Your task to perform on an android device: Open Amazon Image 0: 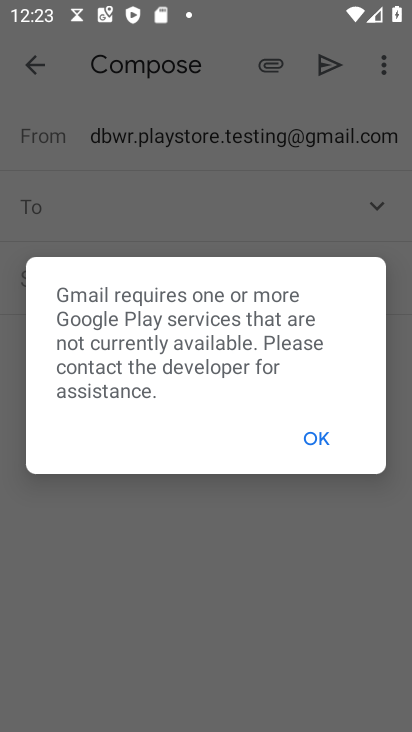
Step 0: press home button
Your task to perform on an android device: Open Amazon Image 1: 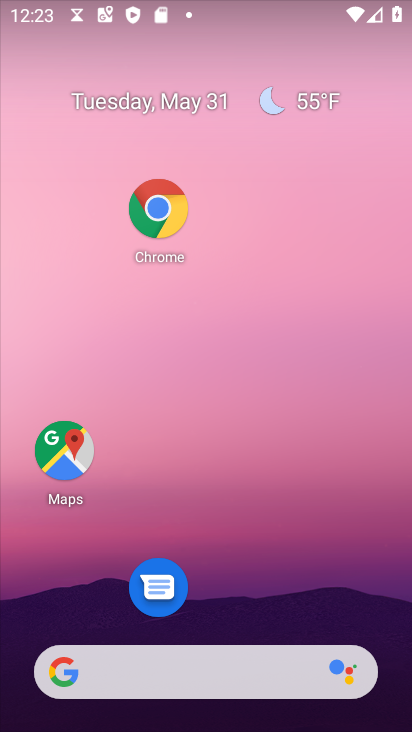
Step 1: click (170, 202)
Your task to perform on an android device: Open Amazon Image 2: 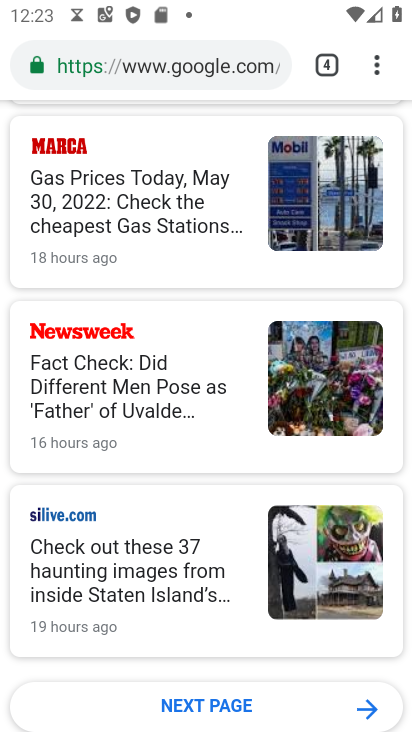
Step 2: click (331, 70)
Your task to perform on an android device: Open Amazon Image 3: 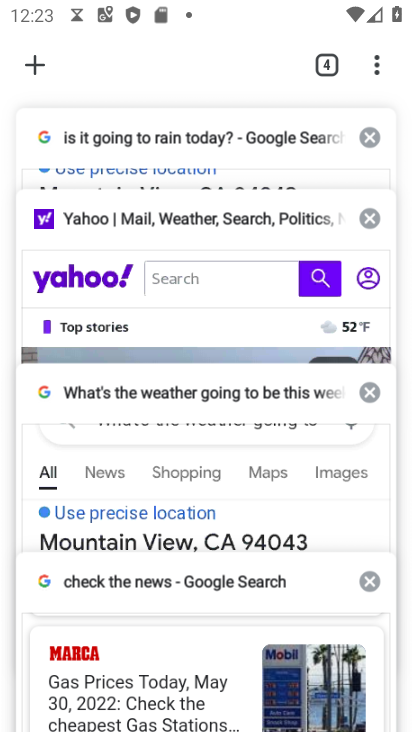
Step 3: click (31, 56)
Your task to perform on an android device: Open Amazon Image 4: 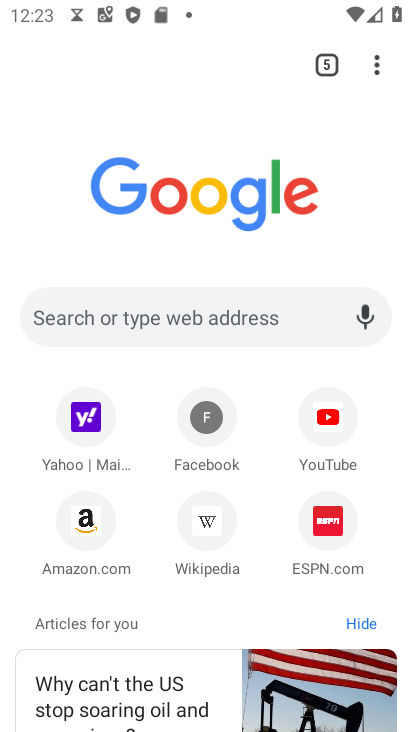
Step 4: click (92, 521)
Your task to perform on an android device: Open Amazon Image 5: 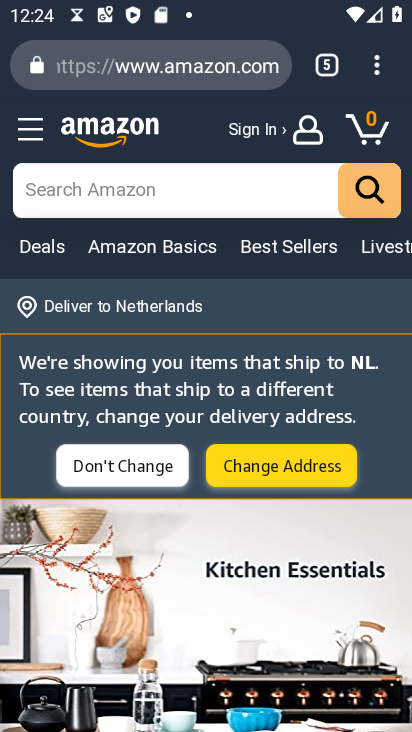
Step 5: task complete